Your task to perform on an android device: Is it going to rain today? Image 0: 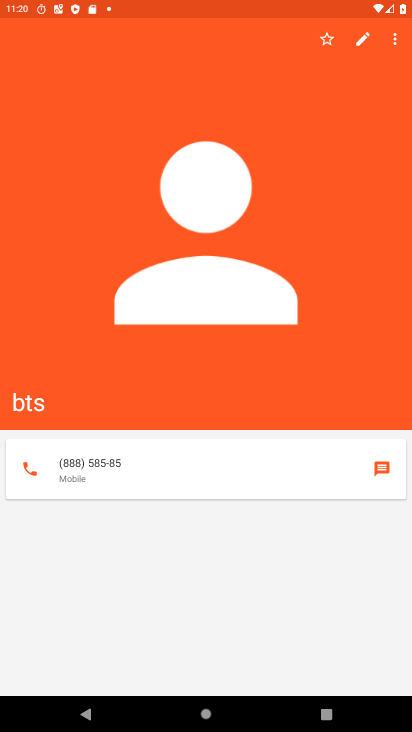
Step 0: press home button
Your task to perform on an android device: Is it going to rain today? Image 1: 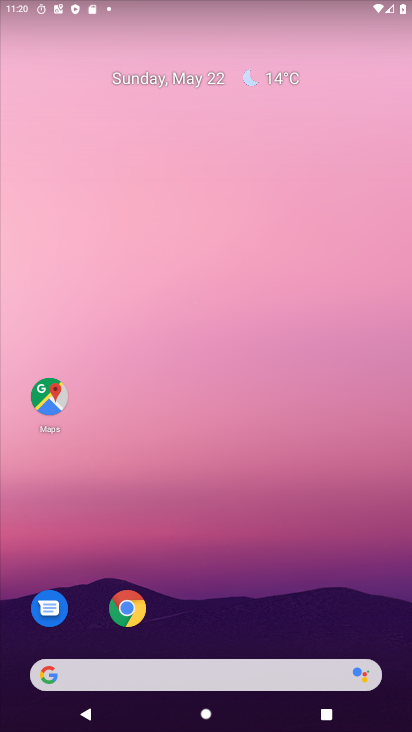
Step 1: click (248, 74)
Your task to perform on an android device: Is it going to rain today? Image 2: 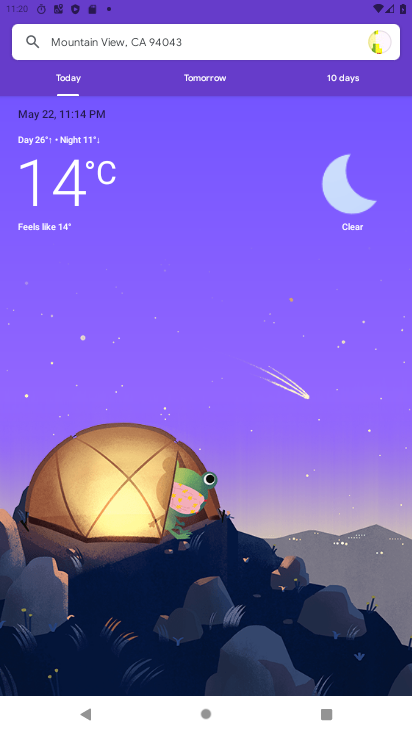
Step 2: task complete